Your task to perform on an android device: set the stopwatch Image 0: 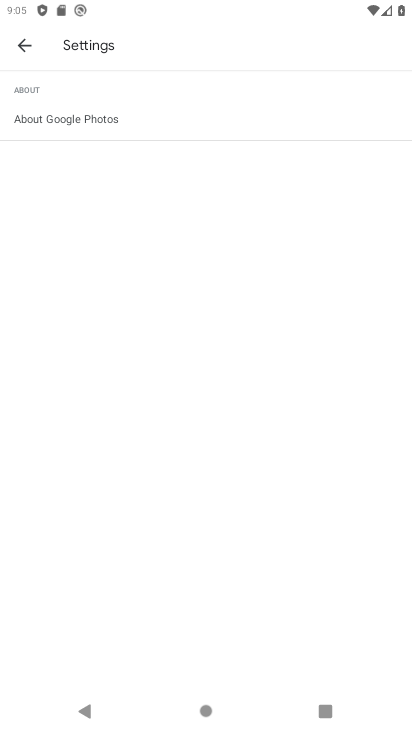
Step 0: press back button
Your task to perform on an android device: set the stopwatch Image 1: 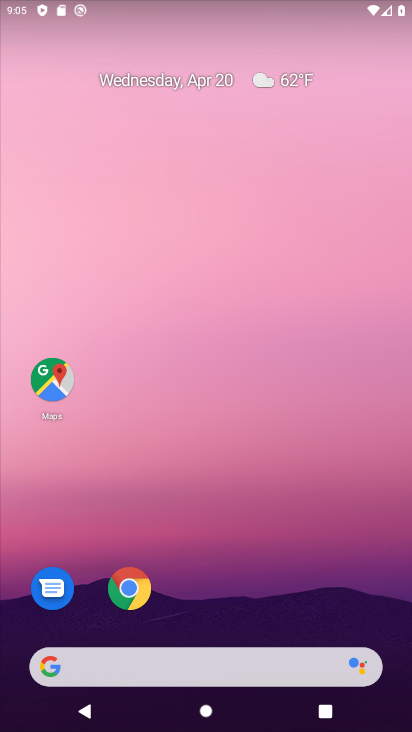
Step 1: drag from (263, 463) to (234, 54)
Your task to perform on an android device: set the stopwatch Image 2: 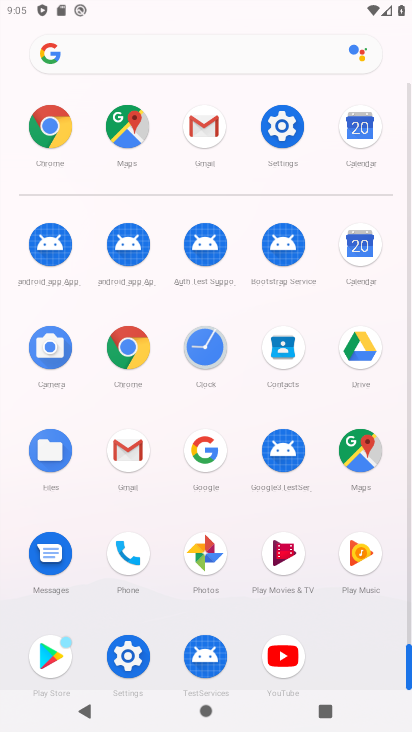
Step 2: click (204, 350)
Your task to perform on an android device: set the stopwatch Image 3: 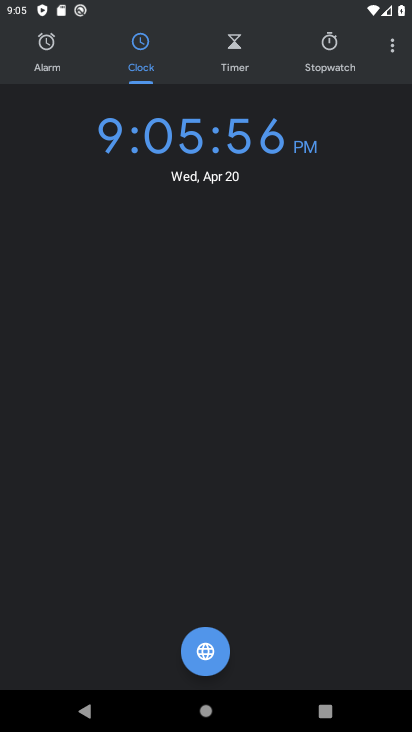
Step 3: click (331, 50)
Your task to perform on an android device: set the stopwatch Image 4: 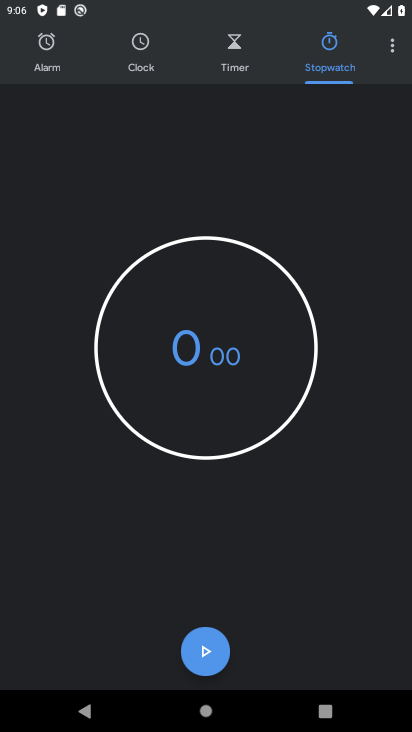
Step 4: click (214, 342)
Your task to perform on an android device: set the stopwatch Image 5: 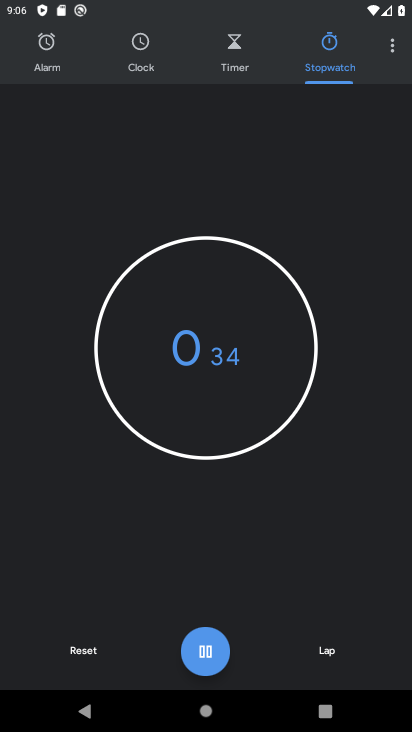
Step 5: click (184, 347)
Your task to perform on an android device: set the stopwatch Image 6: 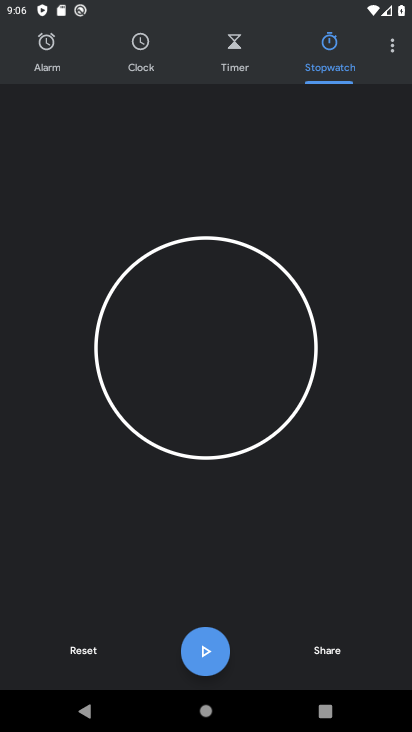
Step 6: click (184, 347)
Your task to perform on an android device: set the stopwatch Image 7: 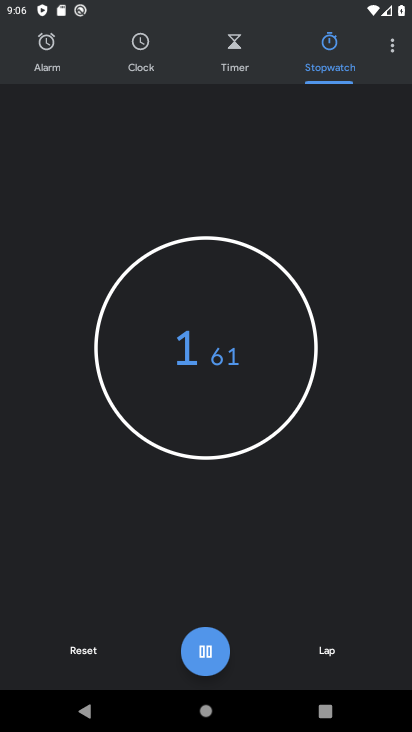
Step 7: click (184, 347)
Your task to perform on an android device: set the stopwatch Image 8: 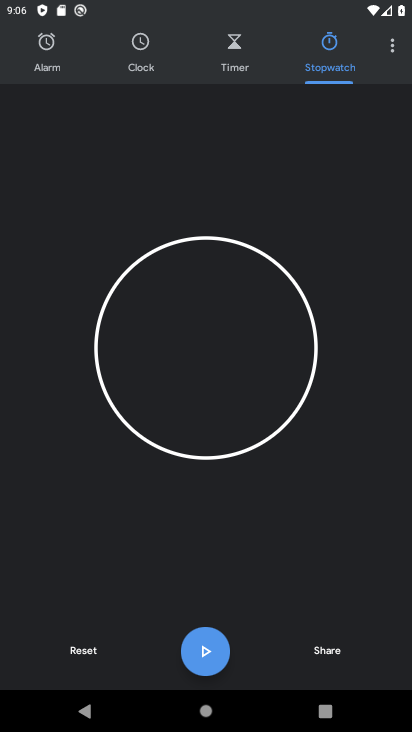
Step 8: click (197, 662)
Your task to perform on an android device: set the stopwatch Image 9: 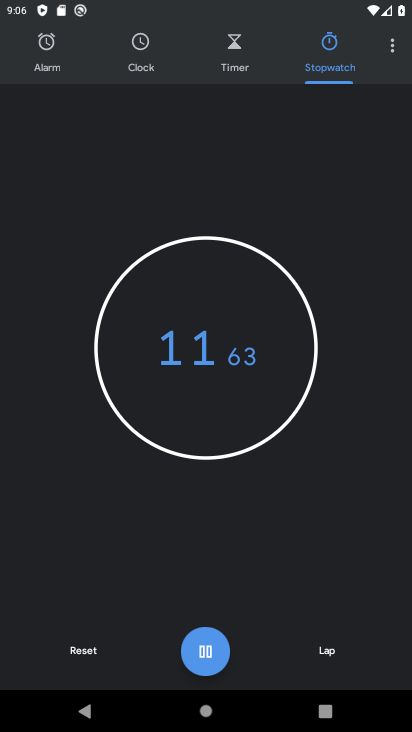
Step 9: task complete